Your task to perform on an android device: Open sound settings Image 0: 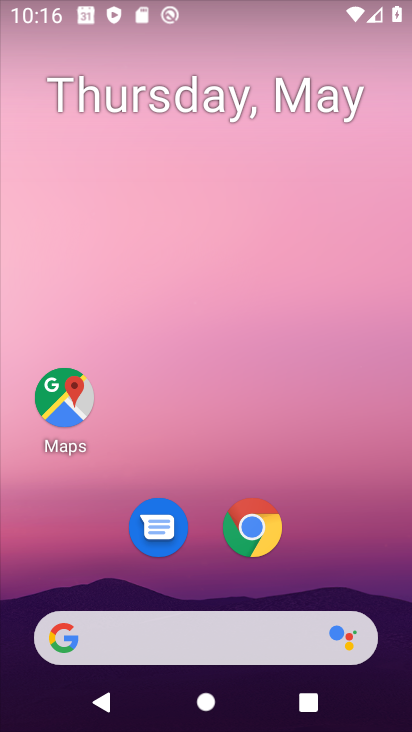
Step 0: drag from (230, 726) to (230, 21)
Your task to perform on an android device: Open sound settings Image 1: 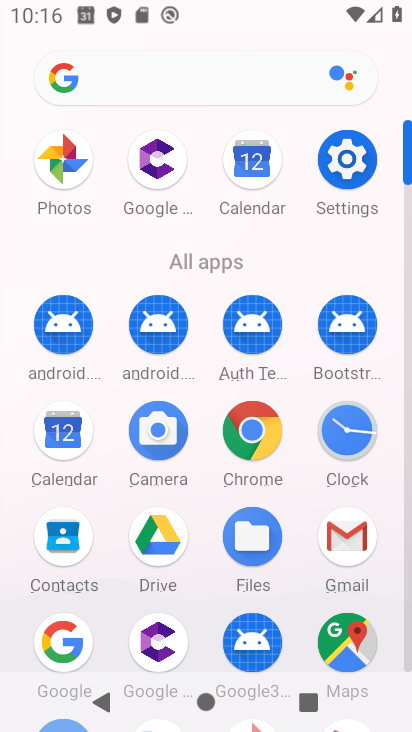
Step 1: click (352, 158)
Your task to perform on an android device: Open sound settings Image 2: 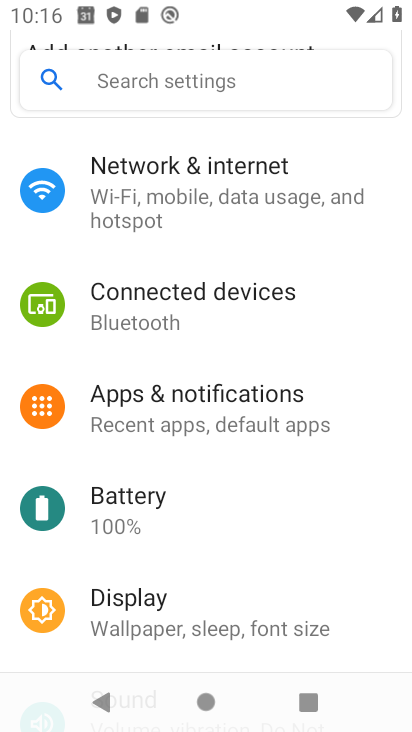
Step 2: drag from (155, 557) to (163, 66)
Your task to perform on an android device: Open sound settings Image 3: 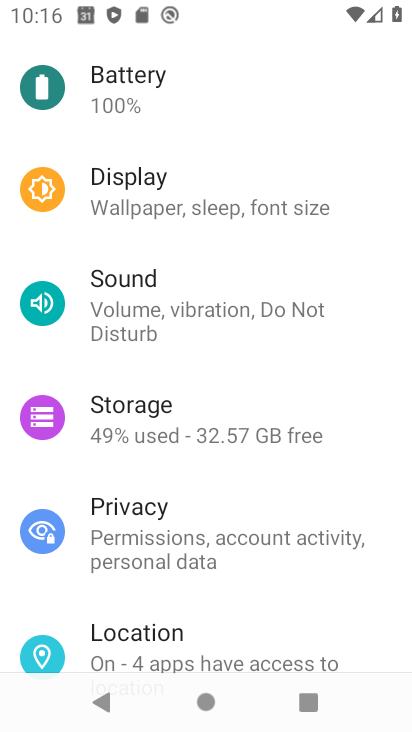
Step 3: drag from (242, 616) to (243, 435)
Your task to perform on an android device: Open sound settings Image 4: 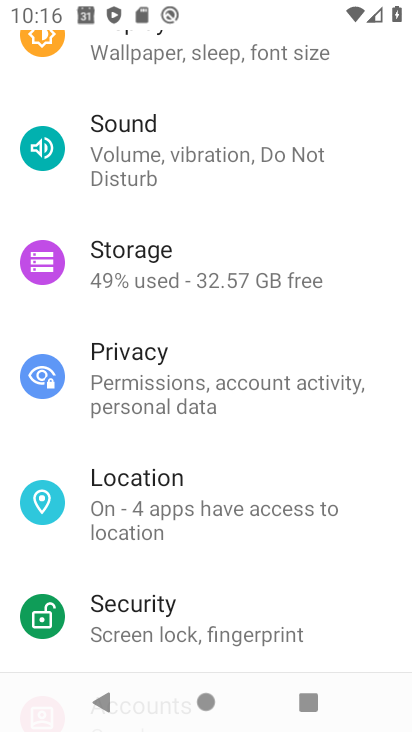
Step 4: click (135, 137)
Your task to perform on an android device: Open sound settings Image 5: 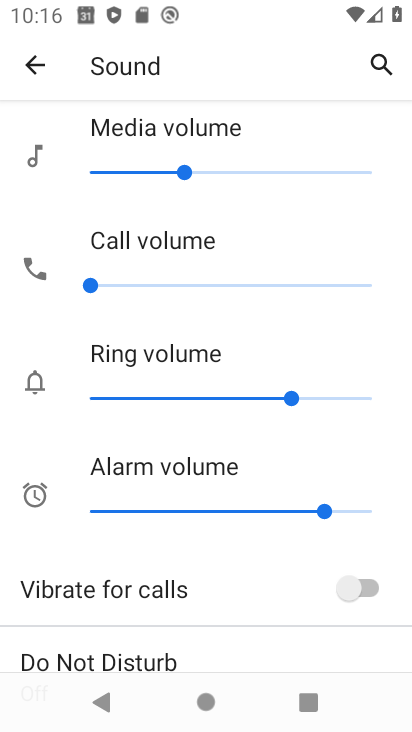
Step 5: task complete